Your task to perform on an android device: Open privacy settings Image 0: 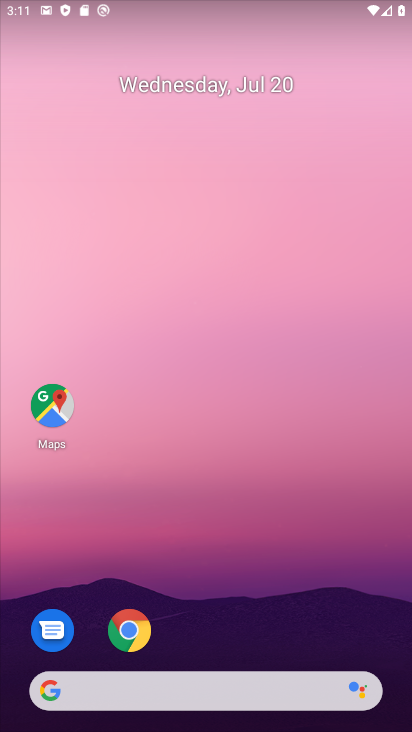
Step 0: drag from (191, 602) to (339, 219)
Your task to perform on an android device: Open privacy settings Image 1: 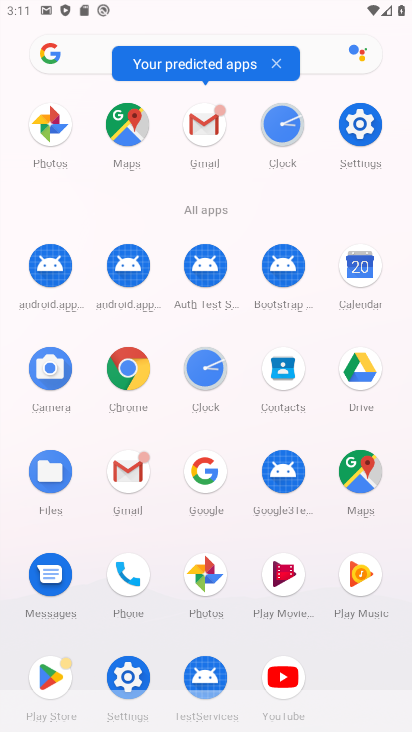
Step 1: click (367, 127)
Your task to perform on an android device: Open privacy settings Image 2: 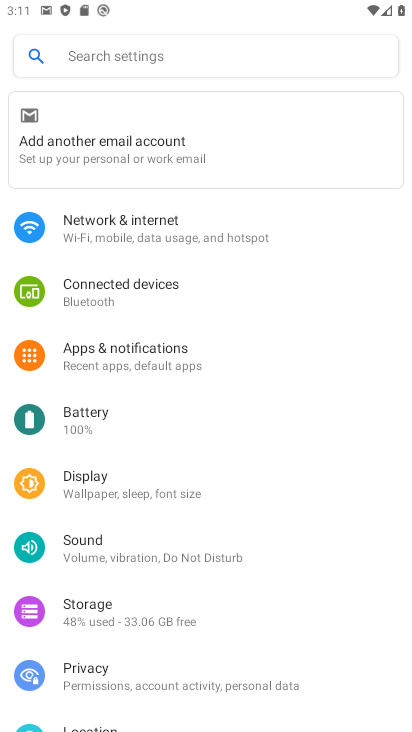
Step 2: click (118, 679)
Your task to perform on an android device: Open privacy settings Image 3: 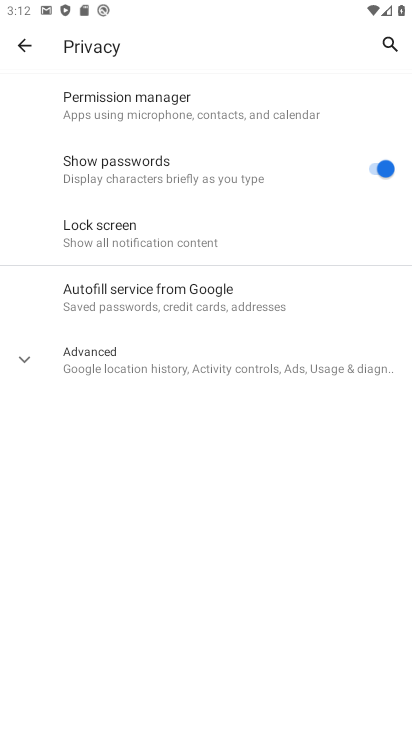
Step 3: task complete